Your task to perform on an android device: turn off airplane mode Image 0: 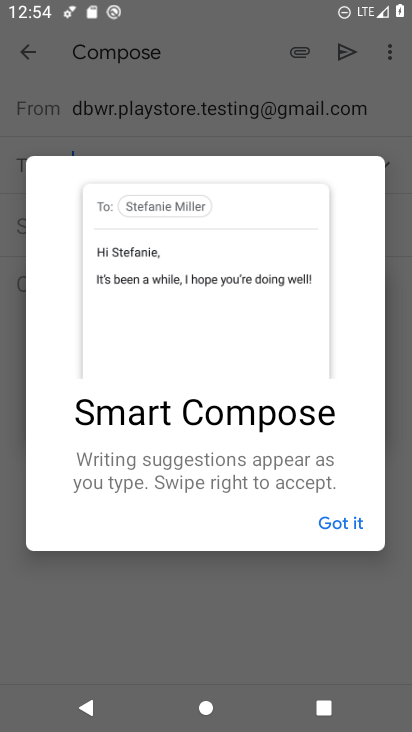
Step 0: press home button
Your task to perform on an android device: turn off airplane mode Image 1: 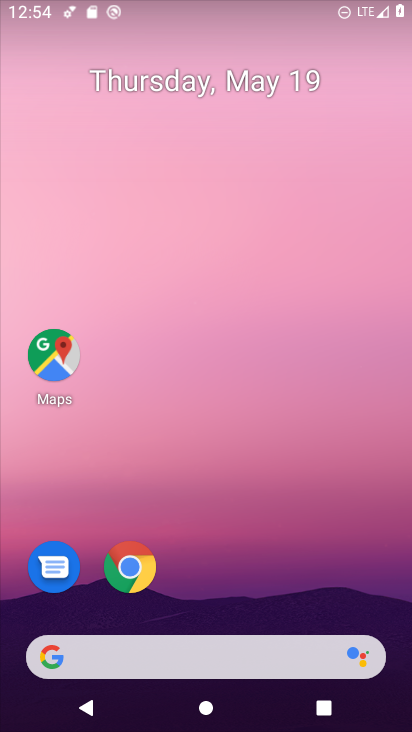
Step 1: drag from (224, 512) to (224, 58)
Your task to perform on an android device: turn off airplane mode Image 2: 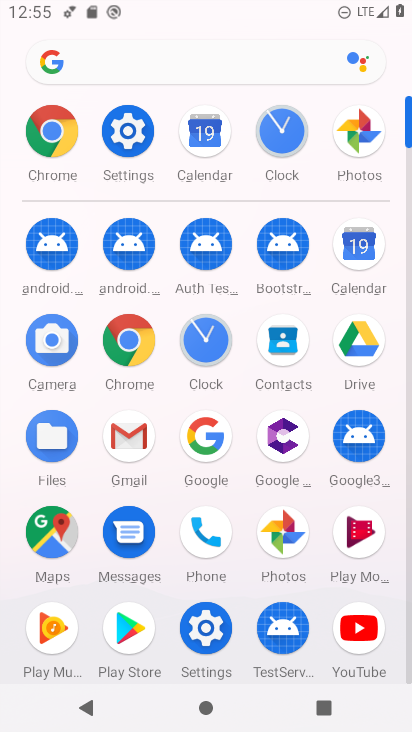
Step 2: click (142, 141)
Your task to perform on an android device: turn off airplane mode Image 3: 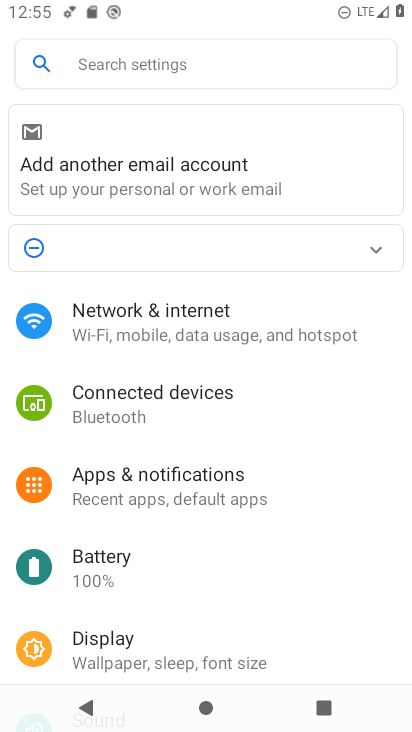
Step 3: click (225, 320)
Your task to perform on an android device: turn off airplane mode Image 4: 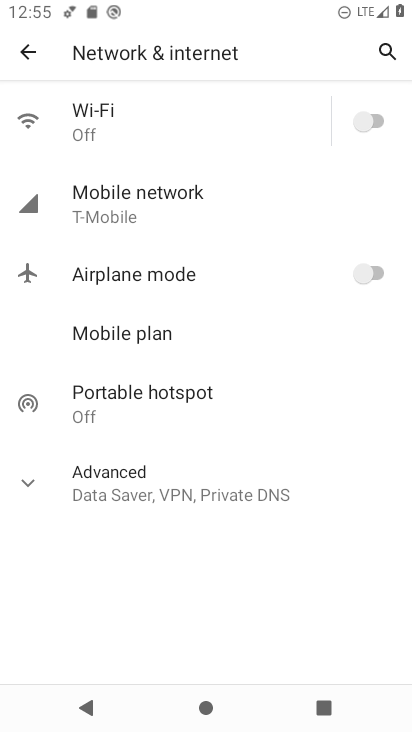
Step 4: task complete